Your task to perform on an android device: see tabs open on other devices in the chrome app Image 0: 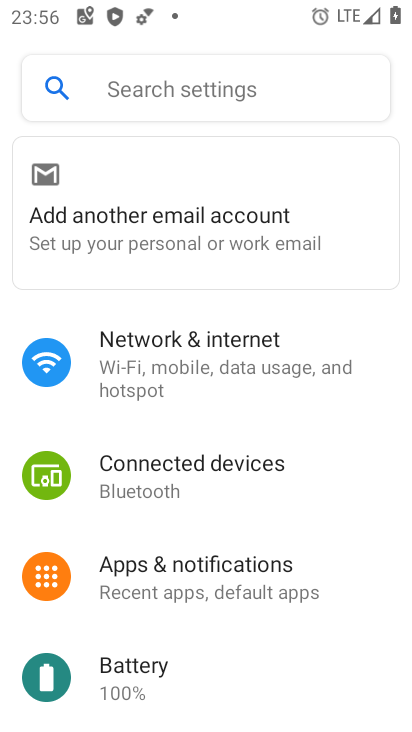
Step 0: press home button
Your task to perform on an android device: see tabs open on other devices in the chrome app Image 1: 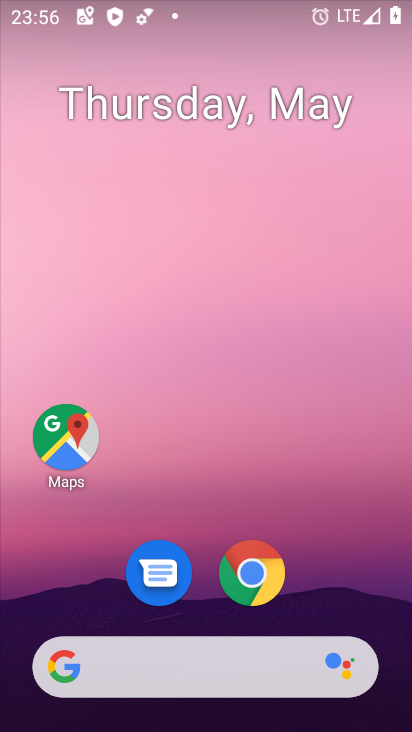
Step 1: click (263, 585)
Your task to perform on an android device: see tabs open on other devices in the chrome app Image 2: 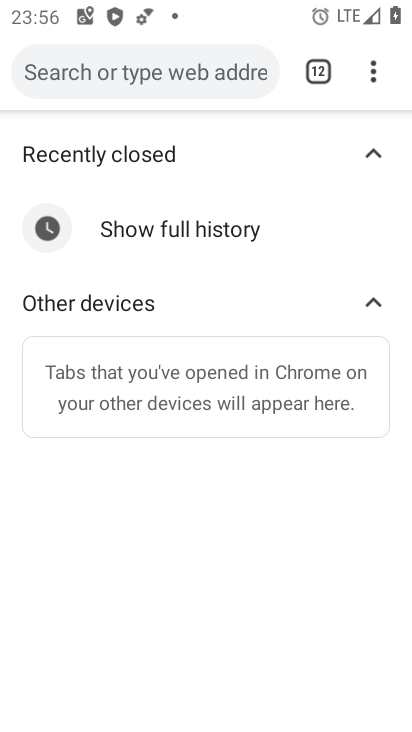
Step 2: task complete